Your task to perform on an android device: Open Google Chrome and open the bookmarks view Image 0: 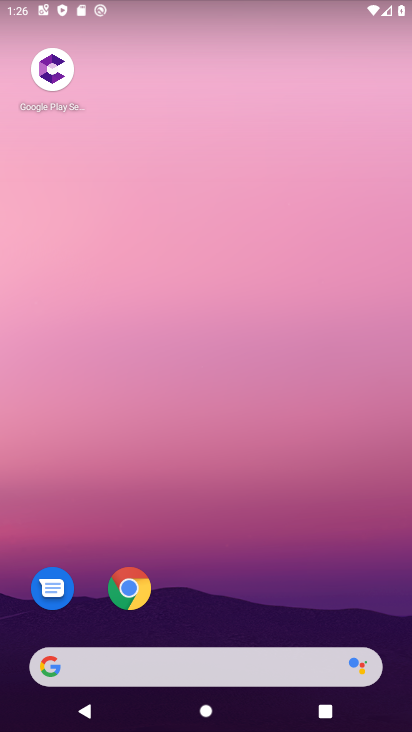
Step 0: click (124, 585)
Your task to perform on an android device: Open Google Chrome and open the bookmarks view Image 1: 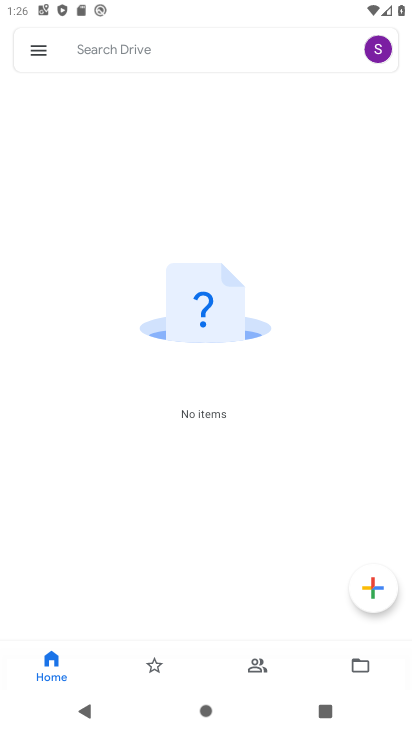
Step 1: press home button
Your task to perform on an android device: Open Google Chrome and open the bookmarks view Image 2: 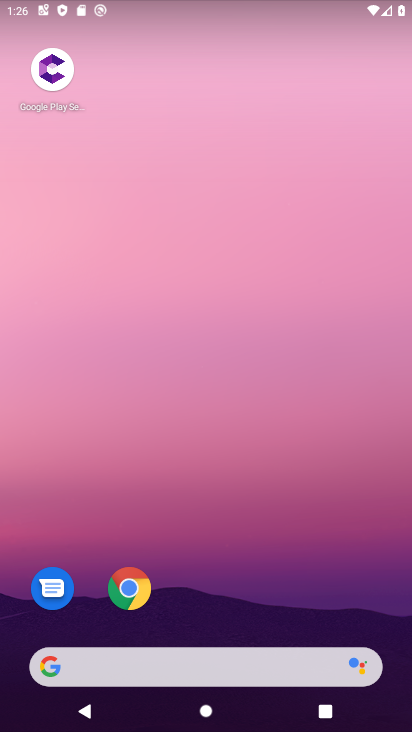
Step 2: drag from (35, 688) to (250, 162)
Your task to perform on an android device: Open Google Chrome and open the bookmarks view Image 3: 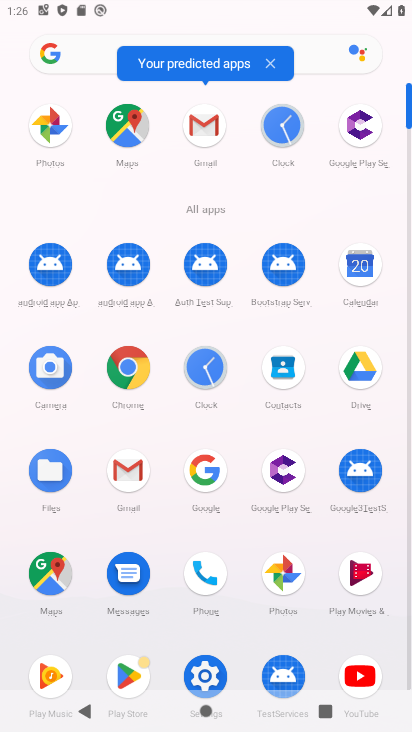
Step 3: click (125, 370)
Your task to perform on an android device: Open Google Chrome and open the bookmarks view Image 4: 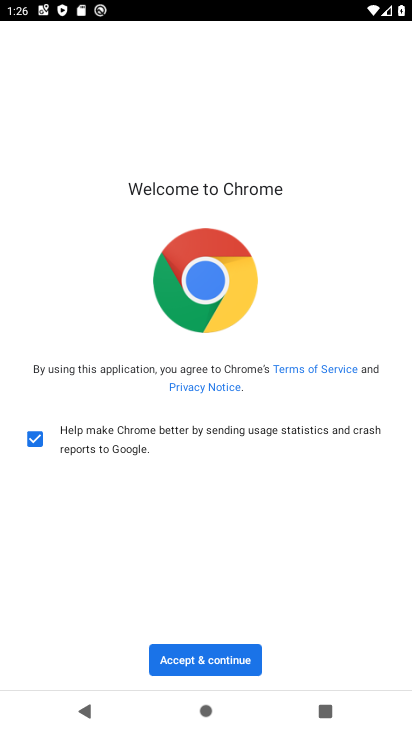
Step 4: click (193, 654)
Your task to perform on an android device: Open Google Chrome and open the bookmarks view Image 5: 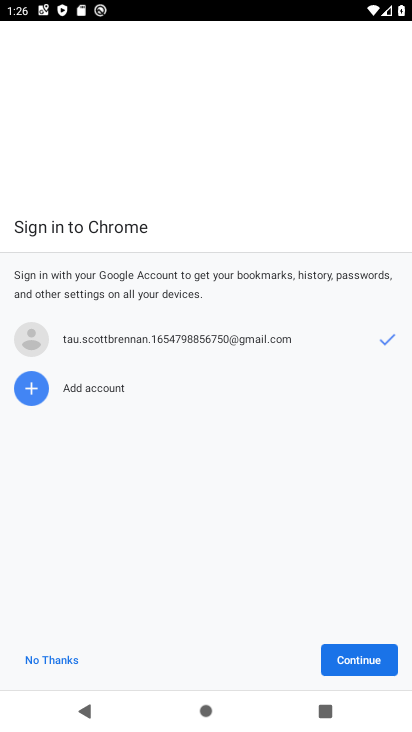
Step 5: click (340, 665)
Your task to perform on an android device: Open Google Chrome and open the bookmarks view Image 6: 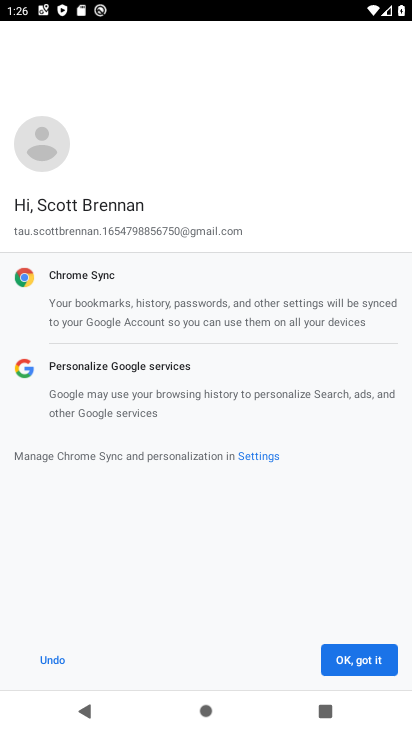
Step 6: click (360, 665)
Your task to perform on an android device: Open Google Chrome and open the bookmarks view Image 7: 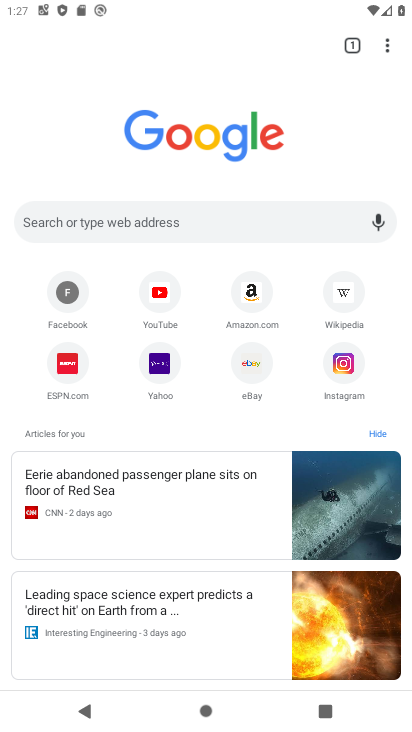
Step 7: click (386, 42)
Your task to perform on an android device: Open Google Chrome and open the bookmarks view Image 8: 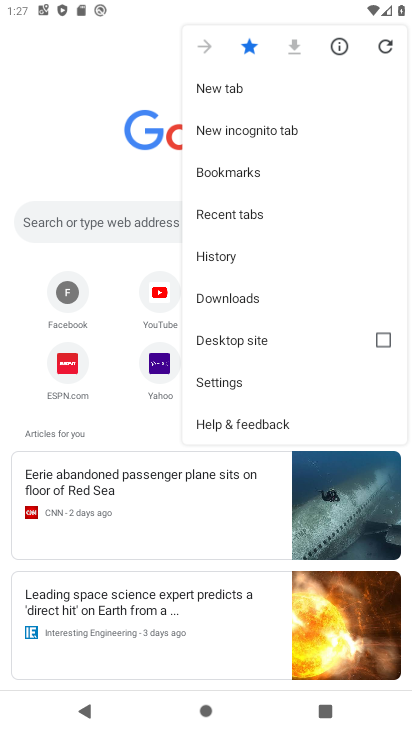
Step 8: click (219, 170)
Your task to perform on an android device: Open Google Chrome and open the bookmarks view Image 9: 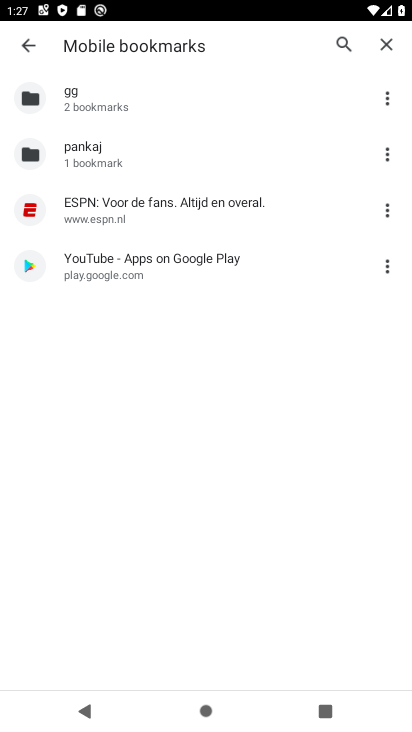
Step 9: task complete